Your task to perform on an android device: toggle pop-ups in chrome Image 0: 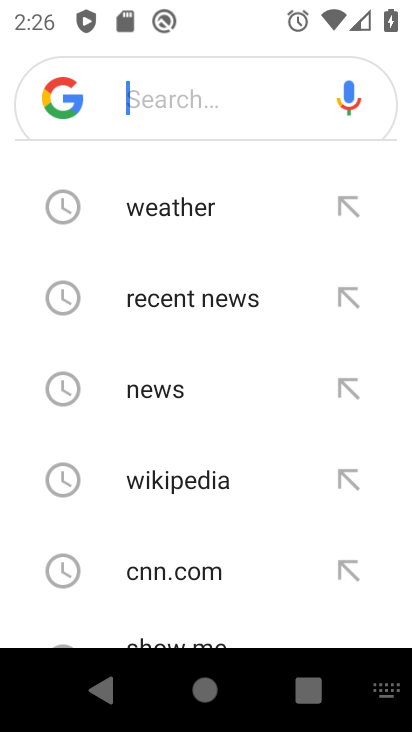
Step 0: press home button
Your task to perform on an android device: toggle pop-ups in chrome Image 1: 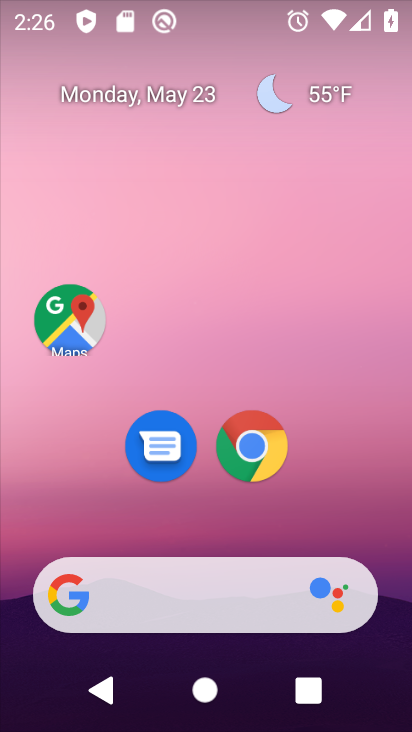
Step 1: click (235, 437)
Your task to perform on an android device: toggle pop-ups in chrome Image 2: 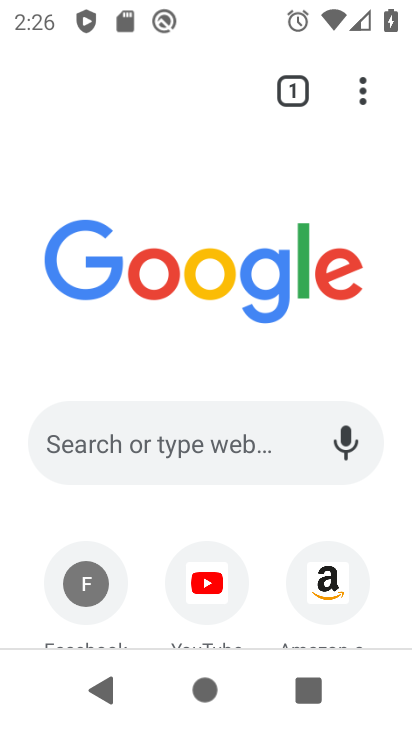
Step 2: click (352, 94)
Your task to perform on an android device: toggle pop-ups in chrome Image 3: 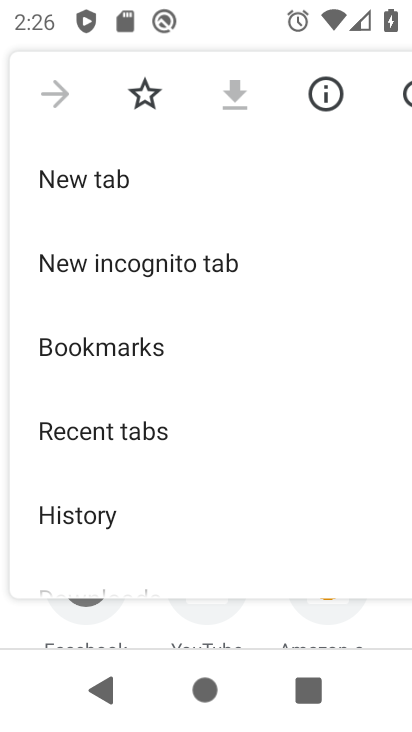
Step 3: drag from (213, 484) to (192, 165)
Your task to perform on an android device: toggle pop-ups in chrome Image 4: 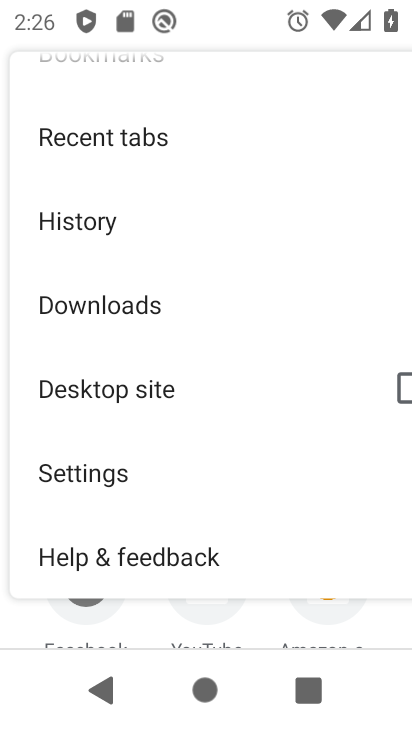
Step 4: click (113, 462)
Your task to perform on an android device: toggle pop-ups in chrome Image 5: 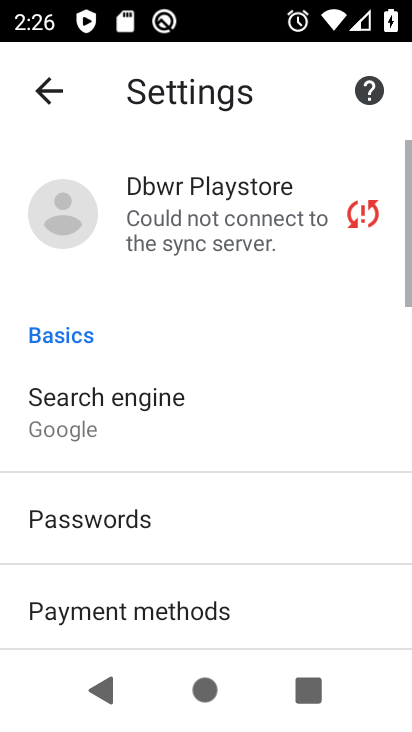
Step 5: drag from (151, 506) to (164, 283)
Your task to perform on an android device: toggle pop-ups in chrome Image 6: 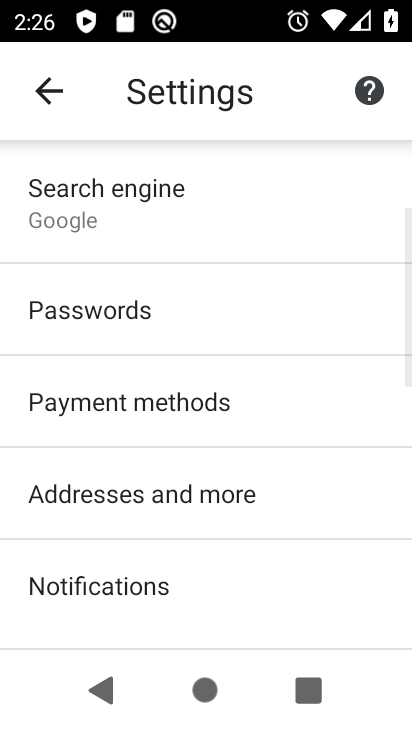
Step 6: drag from (188, 539) to (179, 339)
Your task to perform on an android device: toggle pop-ups in chrome Image 7: 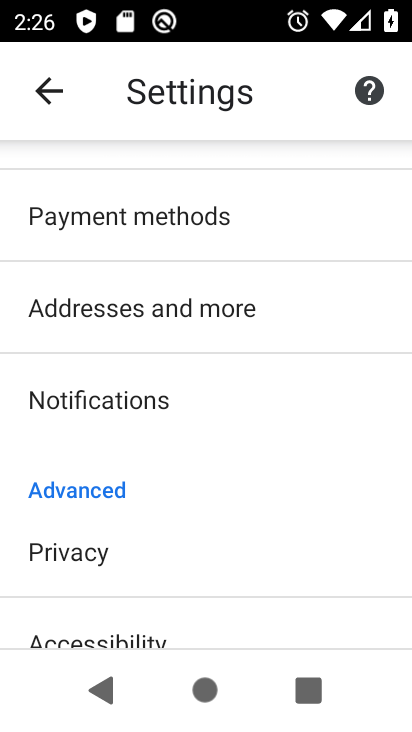
Step 7: drag from (188, 543) to (194, 289)
Your task to perform on an android device: toggle pop-ups in chrome Image 8: 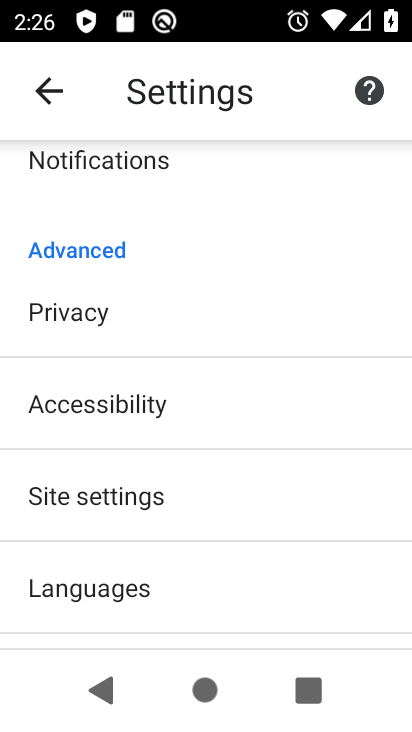
Step 8: click (200, 489)
Your task to perform on an android device: toggle pop-ups in chrome Image 9: 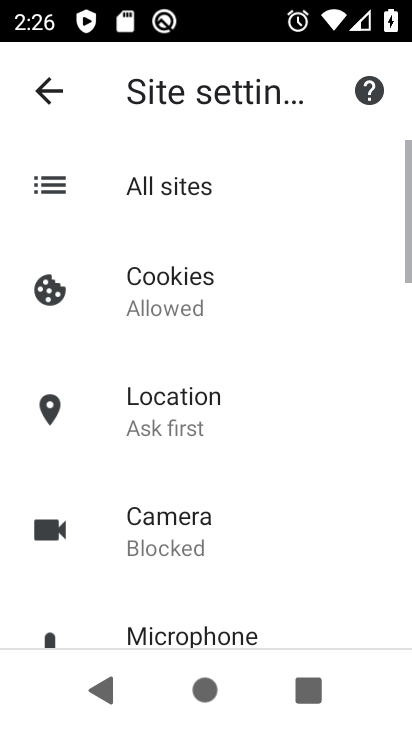
Step 9: drag from (196, 549) to (207, 291)
Your task to perform on an android device: toggle pop-ups in chrome Image 10: 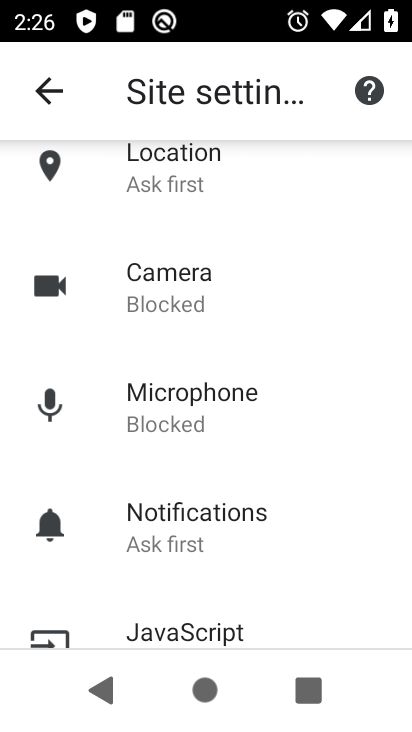
Step 10: drag from (215, 534) to (235, 347)
Your task to perform on an android device: toggle pop-ups in chrome Image 11: 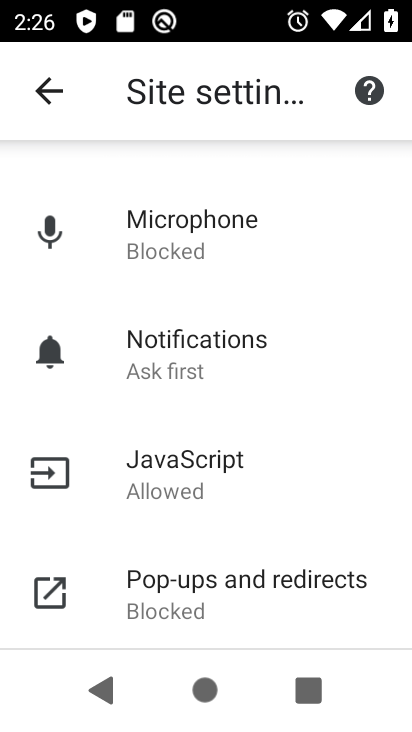
Step 11: click (233, 581)
Your task to perform on an android device: toggle pop-ups in chrome Image 12: 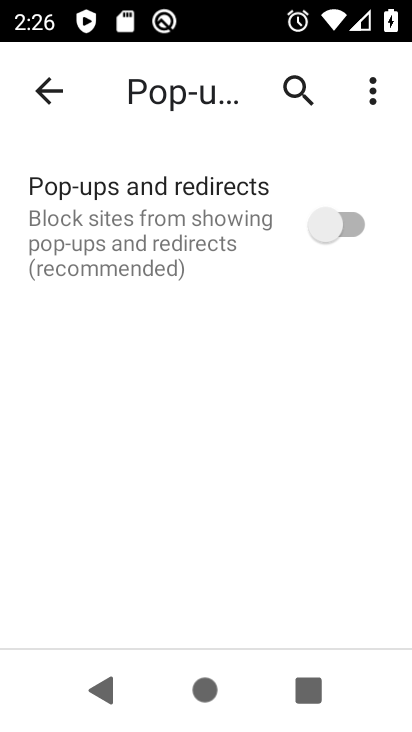
Step 12: click (343, 224)
Your task to perform on an android device: toggle pop-ups in chrome Image 13: 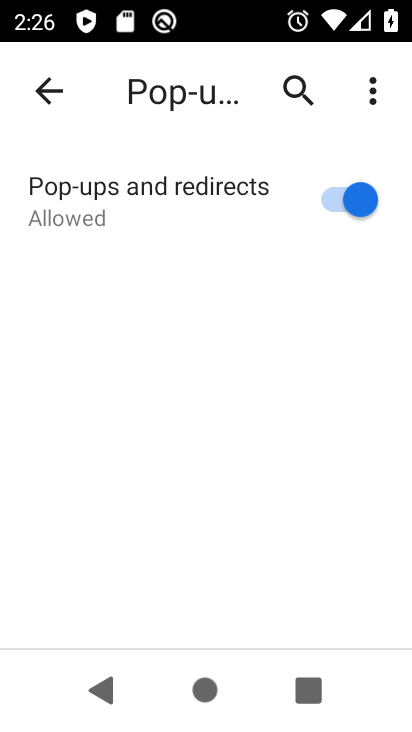
Step 13: task complete